Your task to perform on an android device: add a label to a message in the gmail app Image 0: 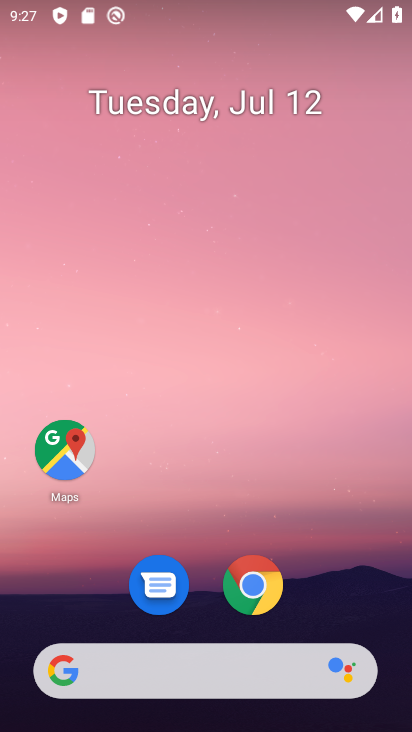
Step 0: drag from (197, 631) to (236, 126)
Your task to perform on an android device: add a label to a message in the gmail app Image 1: 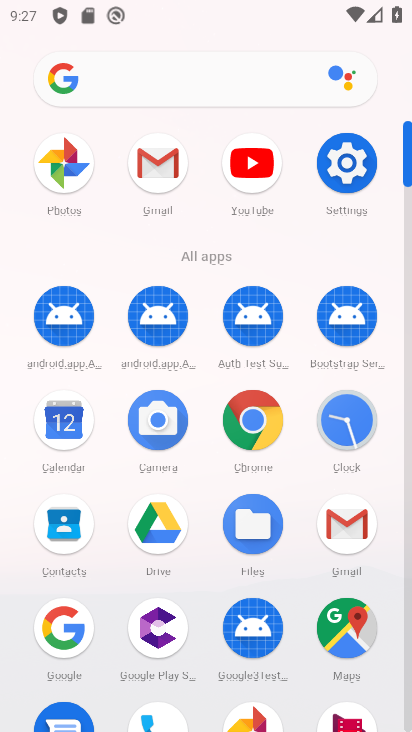
Step 1: click (150, 164)
Your task to perform on an android device: add a label to a message in the gmail app Image 2: 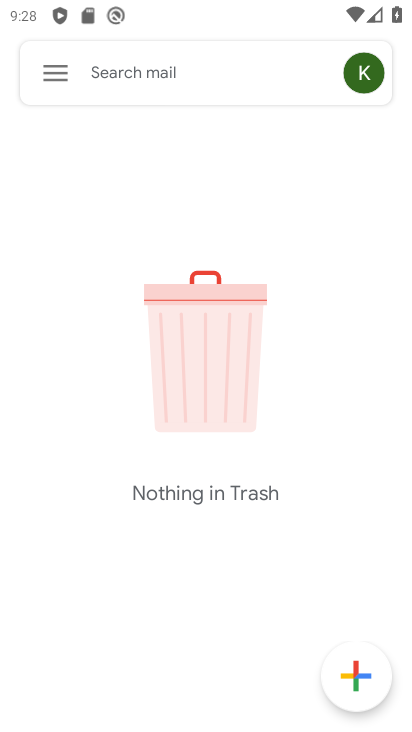
Step 2: click (58, 80)
Your task to perform on an android device: add a label to a message in the gmail app Image 3: 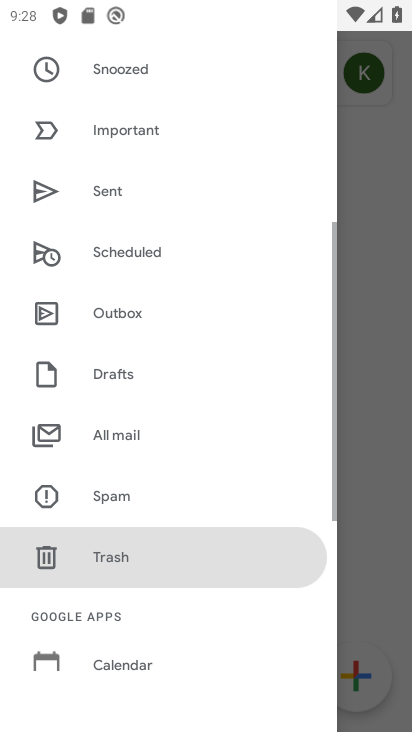
Step 3: drag from (175, 74) to (192, 508)
Your task to perform on an android device: add a label to a message in the gmail app Image 4: 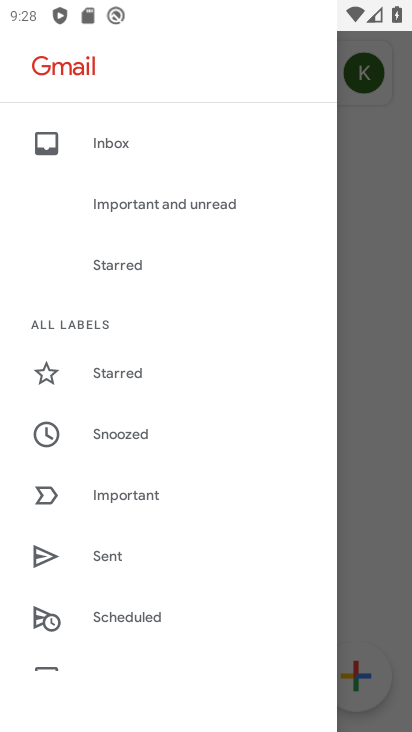
Step 4: click (107, 142)
Your task to perform on an android device: add a label to a message in the gmail app Image 5: 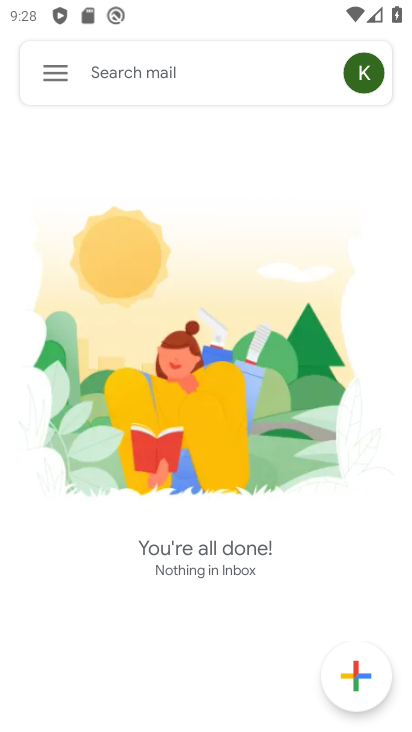
Step 5: task complete